Your task to perform on an android device: Play the new Katy Perry video on YouTube Image 0: 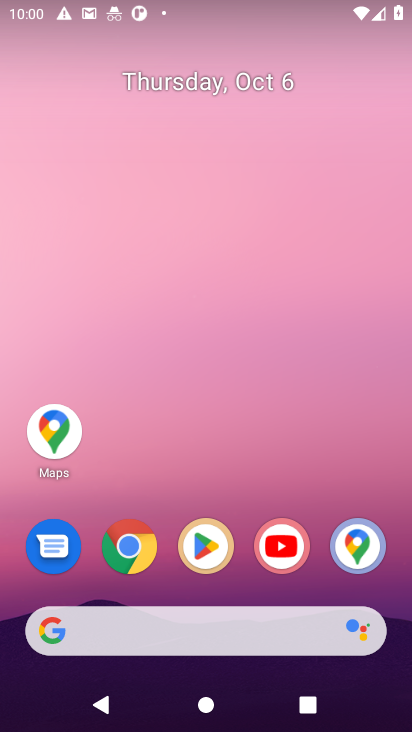
Step 0: click (281, 544)
Your task to perform on an android device: Play the new Katy Perry video on YouTube Image 1: 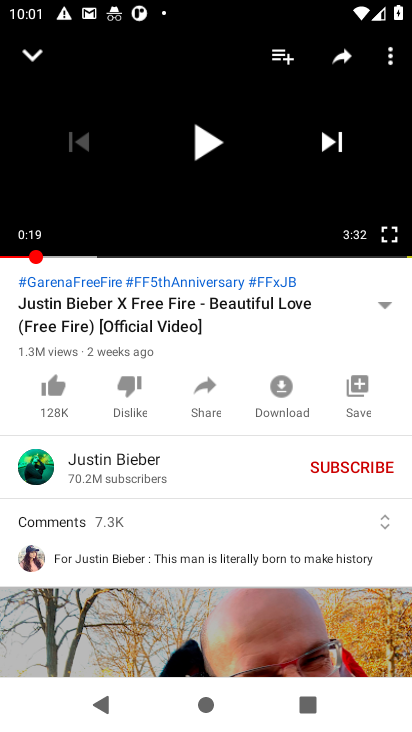
Step 1: click (29, 52)
Your task to perform on an android device: Play the new Katy Perry video on YouTube Image 2: 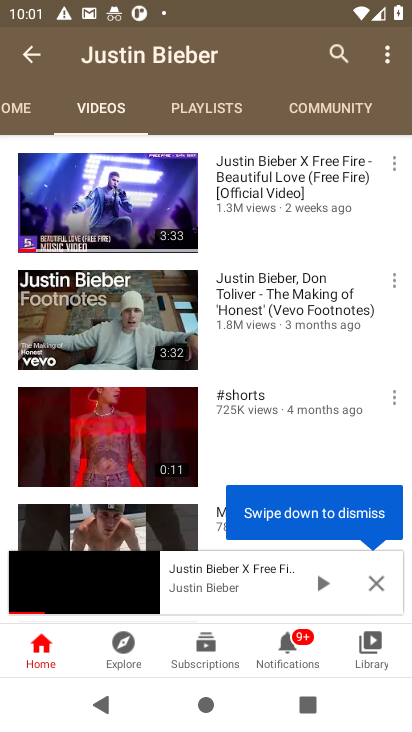
Step 2: click (33, 52)
Your task to perform on an android device: Play the new Katy Perry video on YouTube Image 3: 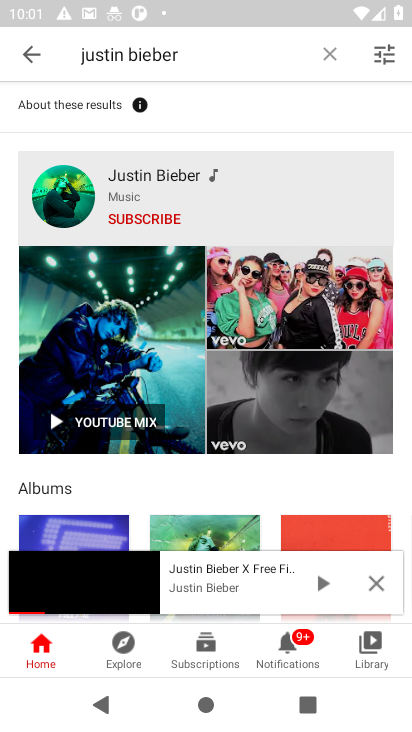
Step 3: click (33, 52)
Your task to perform on an android device: Play the new Katy Perry video on YouTube Image 4: 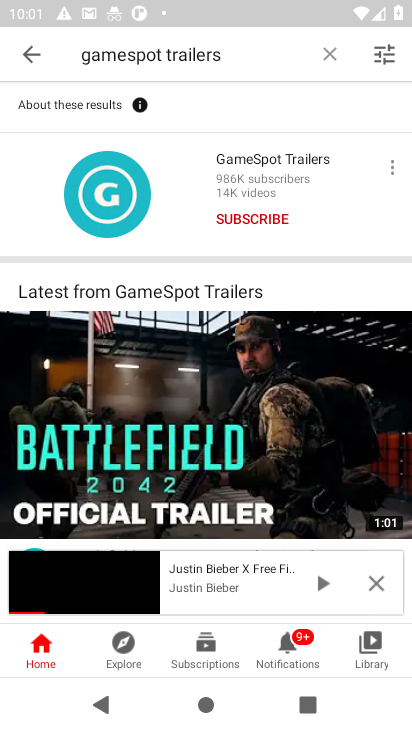
Step 4: click (323, 50)
Your task to perform on an android device: Play the new Katy Perry video on YouTube Image 5: 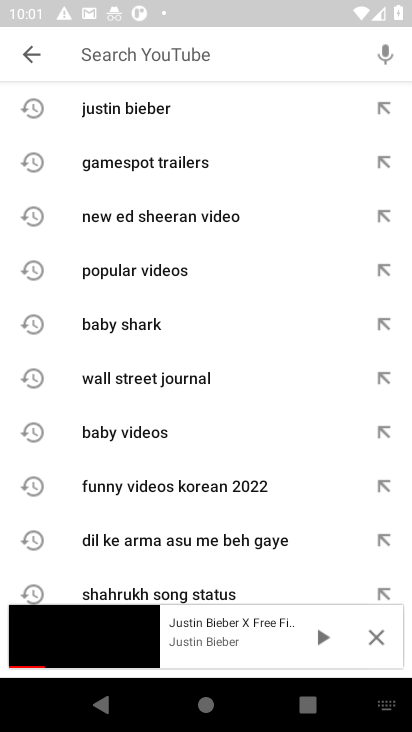
Step 5: type "latest katy perry video"
Your task to perform on an android device: Play the new Katy Perry video on YouTube Image 6: 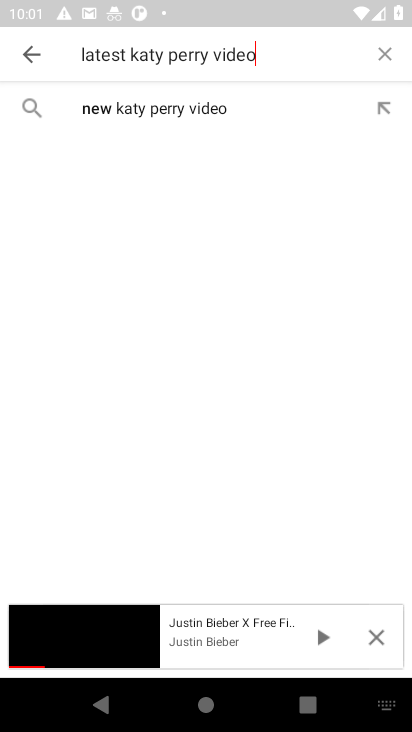
Step 6: click (198, 108)
Your task to perform on an android device: Play the new Katy Perry video on YouTube Image 7: 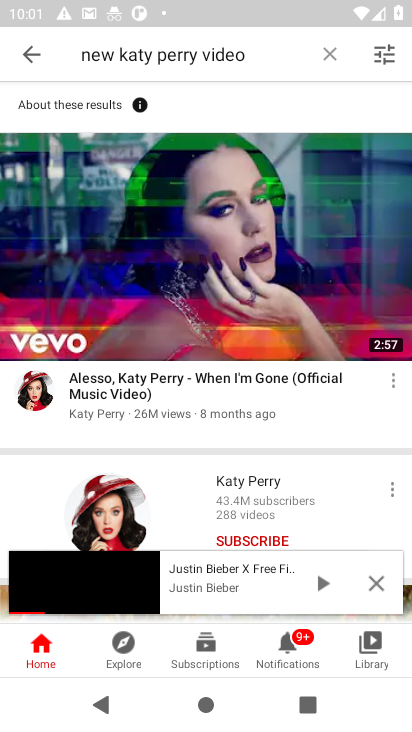
Step 7: click (246, 477)
Your task to perform on an android device: Play the new Katy Perry video on YouTube Image 8: 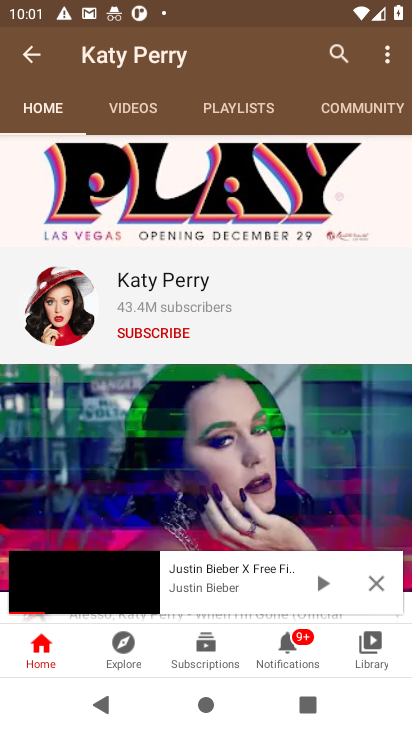
Step 8: click (124, 90)
Your task to perform on an android device: Play the new Katy Perry video on YouTube Image 9: 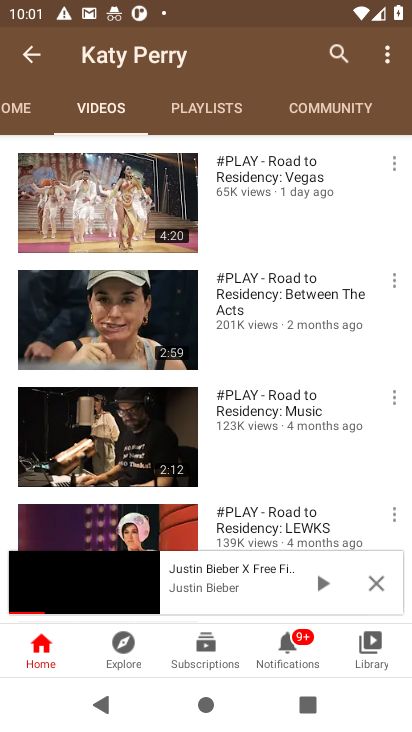
Step 9: click (102, 190)
Your task to perform on an android device: Play the new Katy Perry video on YouTube Image 10: 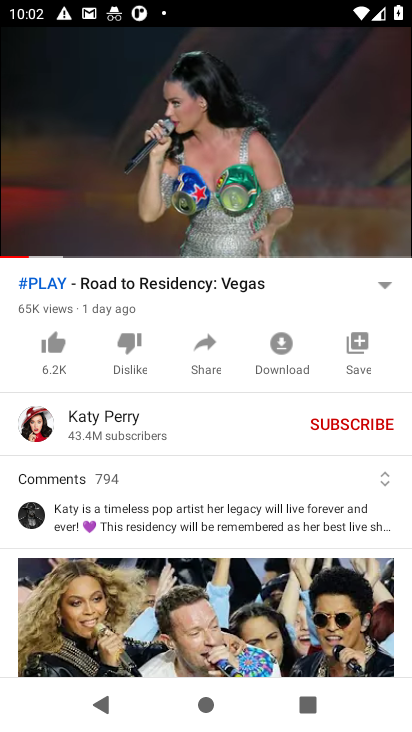
Step 10: click (204, 142)
Your task to perform on an android device: Play the new Katy Perry video on YouTube Image 11: 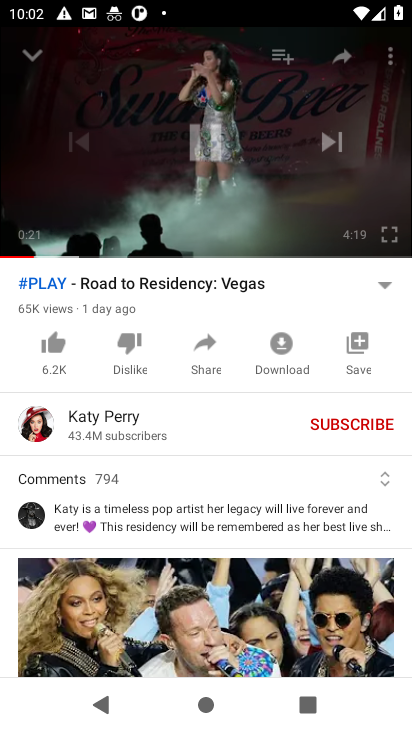
Step 11: click (204, 142)
Your task to perform on an android device: Play the new Katy Perry video on YouTube Image 12: 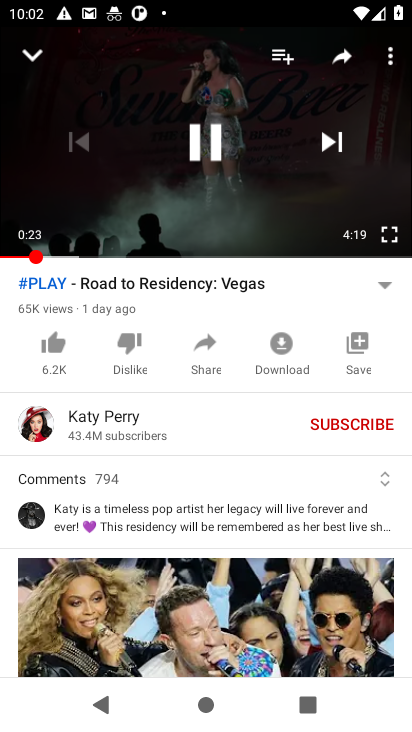
Step 12: click (204, 142)
Your task to perform on an android device: Play the new Katy Perry video on YouTube Image 13: 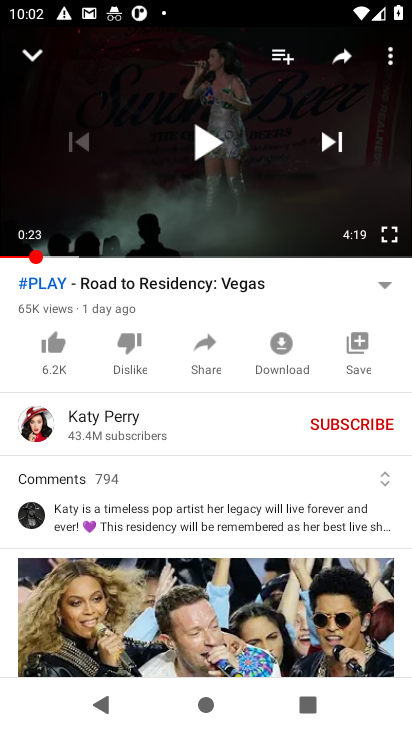
Step 13: task complete